Your task to perform on an android device: Go to internet settings Image 0: 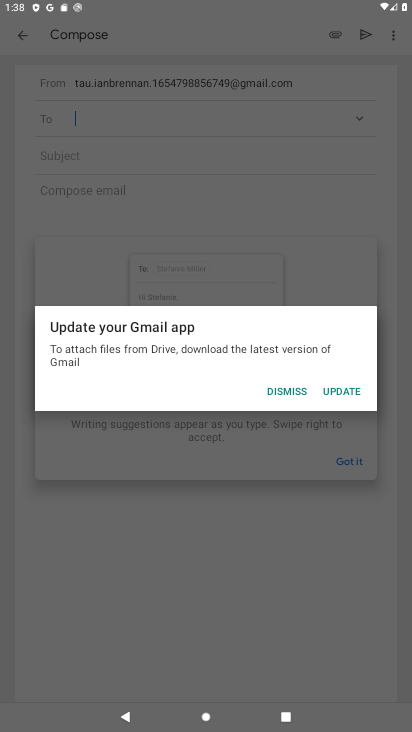
Step 0: press home button
Your task to perform on an android device: Go to internet settings Image 1: 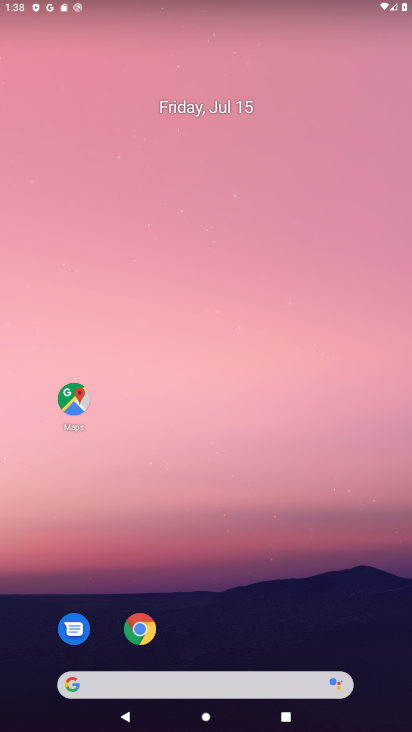
Step 1: drag from (198, 608) to (205, 4)
Your task to perform on an android device: Go to internet settings Image 2: 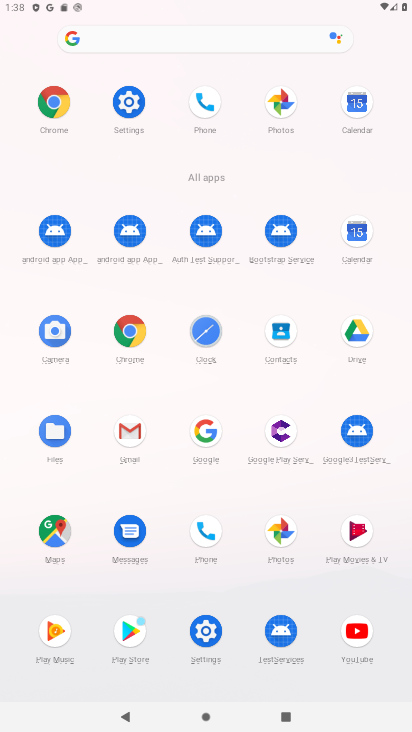
Step 2: click (125, 110)
Your task to perform on an android device: Go to internet settings Image 3: 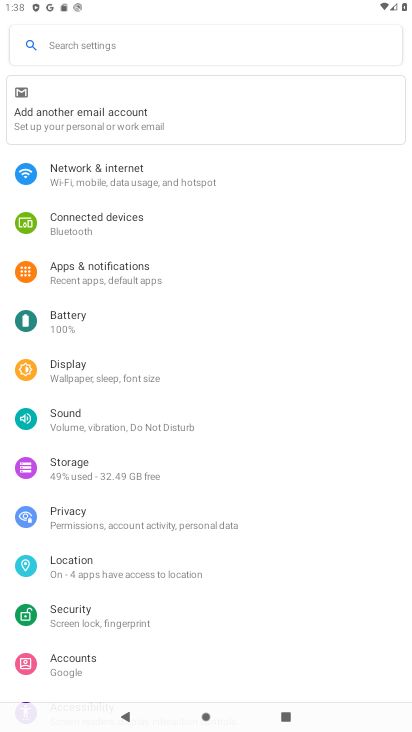
Step 3: click (59, 181)
Your task to perform on an android device: Go to internet settings Image 4: 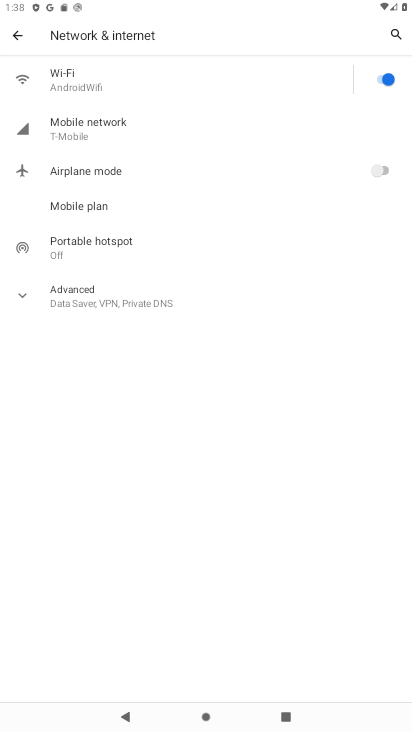
Step 4: task complete